Your task to perform on an android device: Search for "corsair k70" on amazon.com, select the first entry, add it to the cart, then select checkout. Image 0: 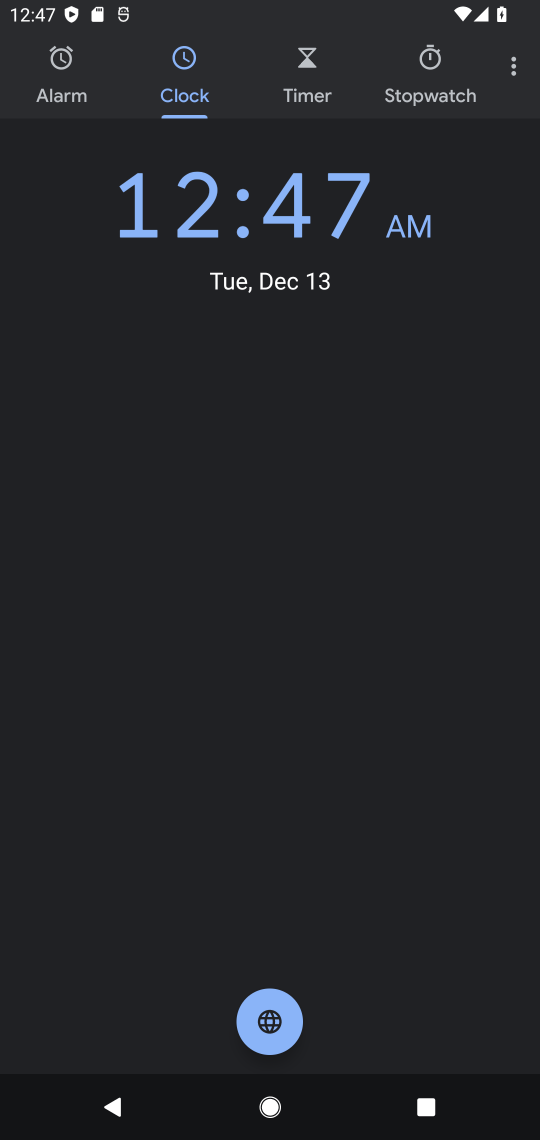
Step 0: press home button
Your task to perform on an android device: Search for "corsair k70" on amazon.com, select the first entry, add it to the cart, then select checkout. Image 1: 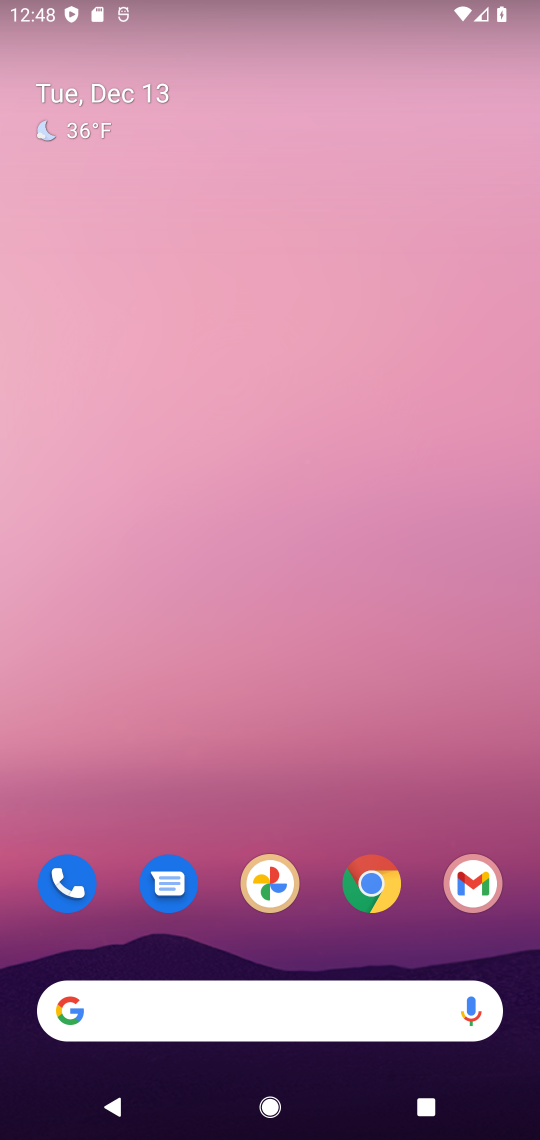
Step 1: click (266, 1021)
Your task to perform on an android device: Search for "corsair k70" on amazon.com, select the first entry, add it to the cart, then select checkout. Image 2: 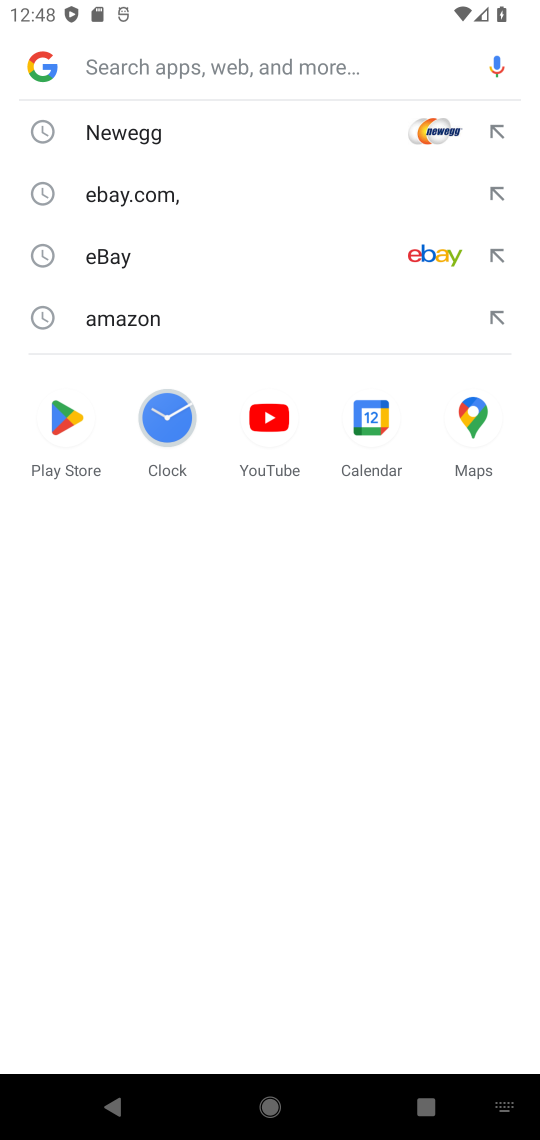
Step 2: click (106, 314)
Your task to perform on an android device: Search for "corsair k70" on amazon.com, select the first entry, add it to the cart, then select checkout. Image 3: 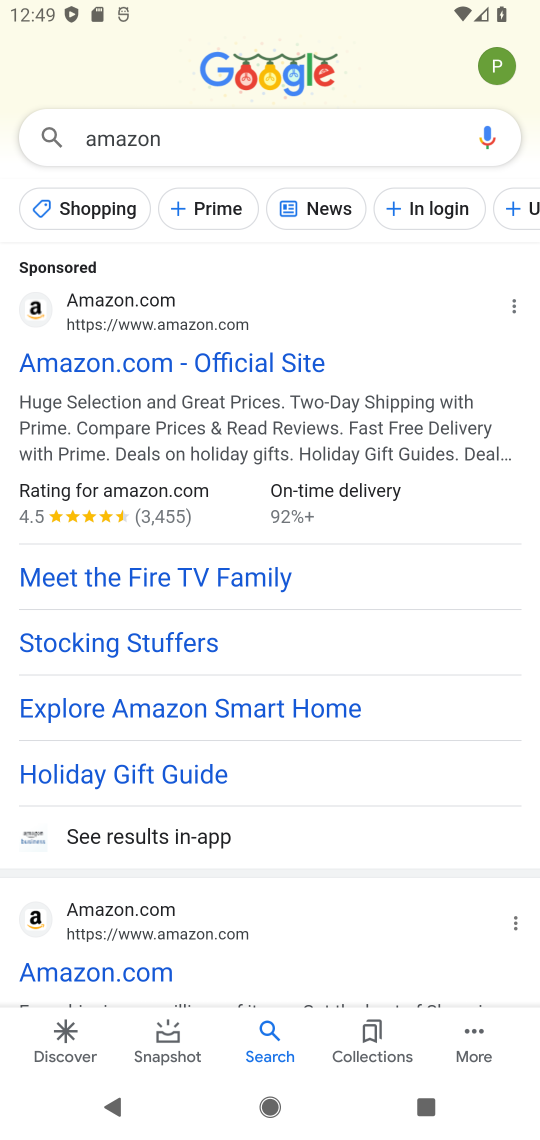
Step 3: click (140, 366)
Your task to perform on an android device: Search for "corsair k70" on amazon.com, select the first entry, add it to the cart, then select checkout. Image 4: 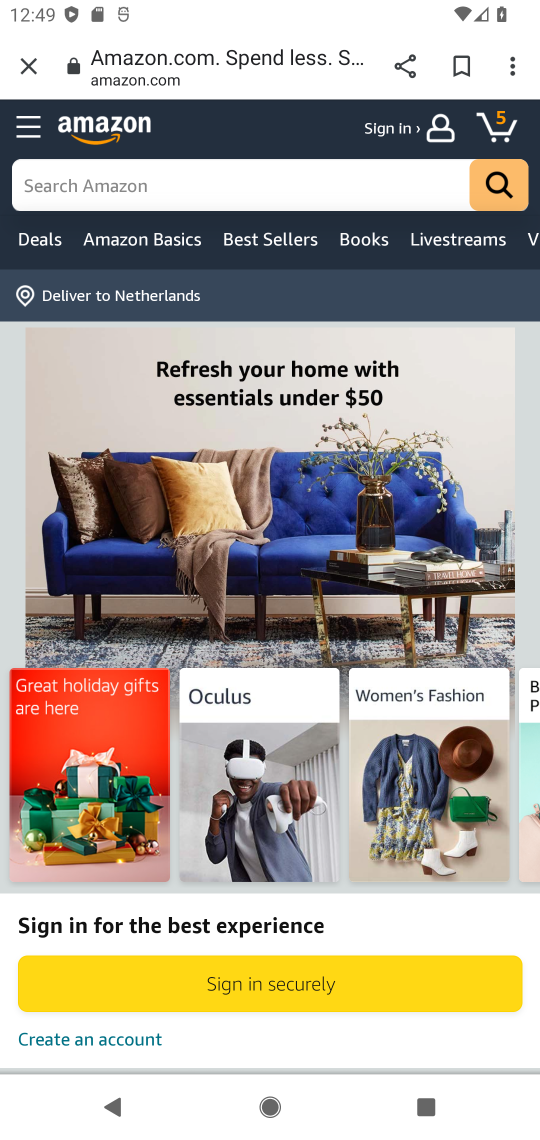
Step 4: click (363, 178)
Your task to perform on an android device: Search for "corsair k70" on amazon.com, select the first entry, add it to the cart, then select checkout. Image 5: 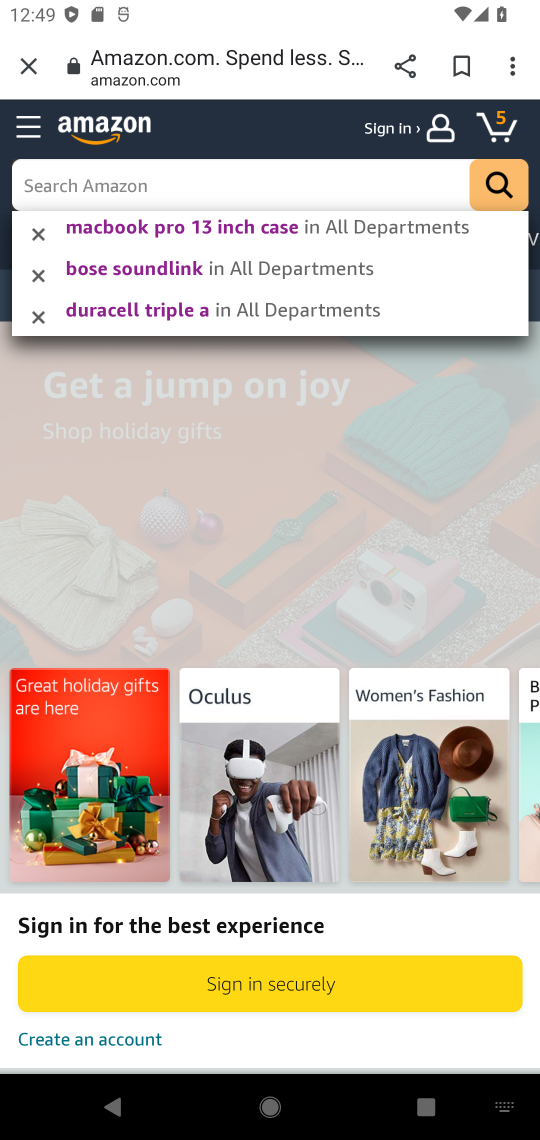
Step 5: click (259, 177)
Your task to perform on an android device: Search for "corsair k70" on amazon.com, select the first entry, add it to the cart, then select checkout. Image 6: 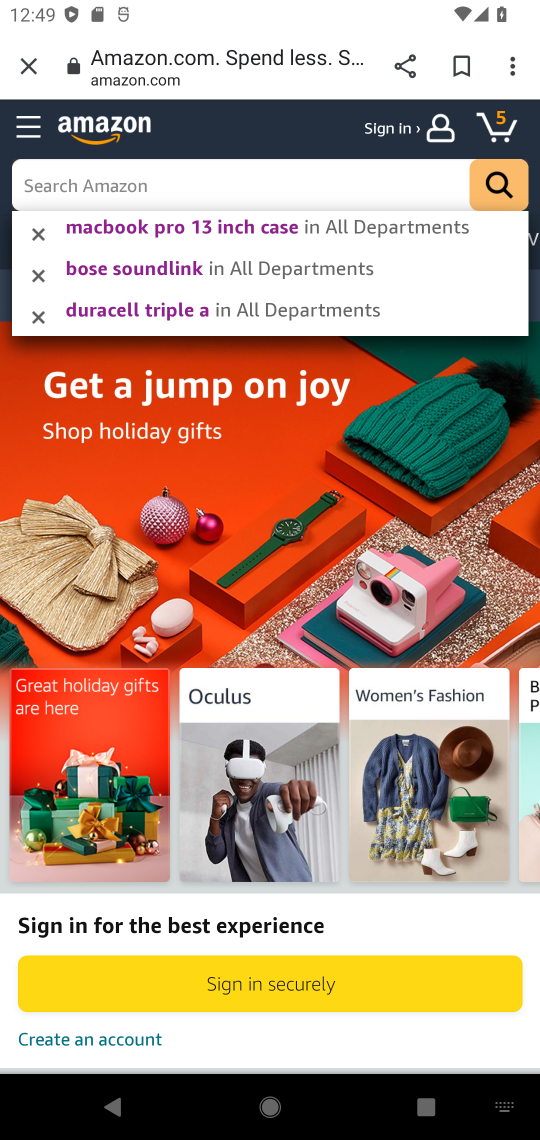
Step 6: type "corsair k70""
Your task to perform on an android device: Search for "corsair k70" on amazon.com, select the first entry, add it to the cart, then select checkout. Image 7: 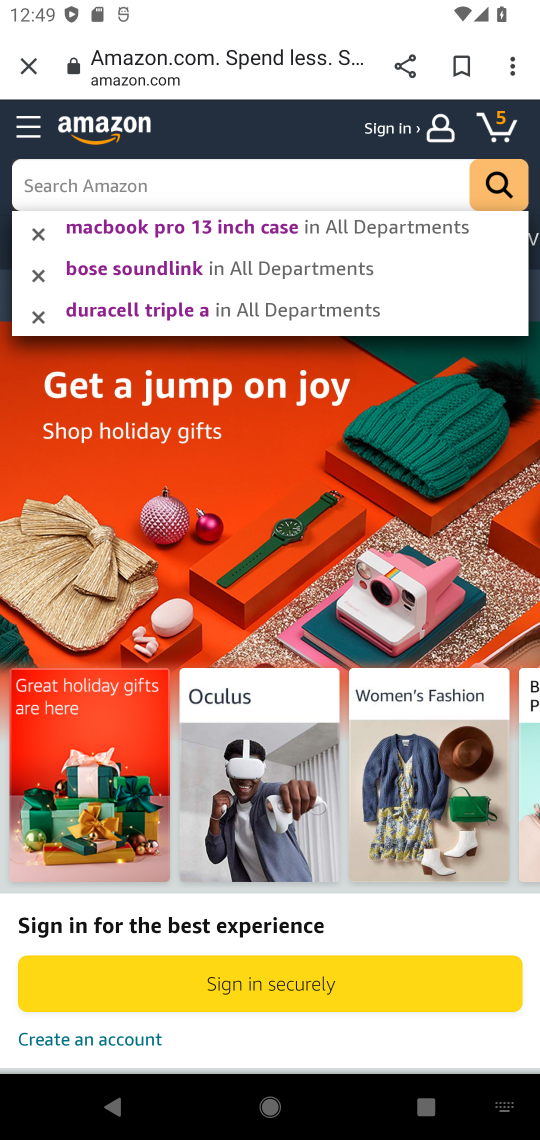
Step 7: type "corsair k70"
Your task to perform on an android device: Search for "corsair k70" on amazon.com, select the first entry, add it to the cart, then select checkout. Image 8: 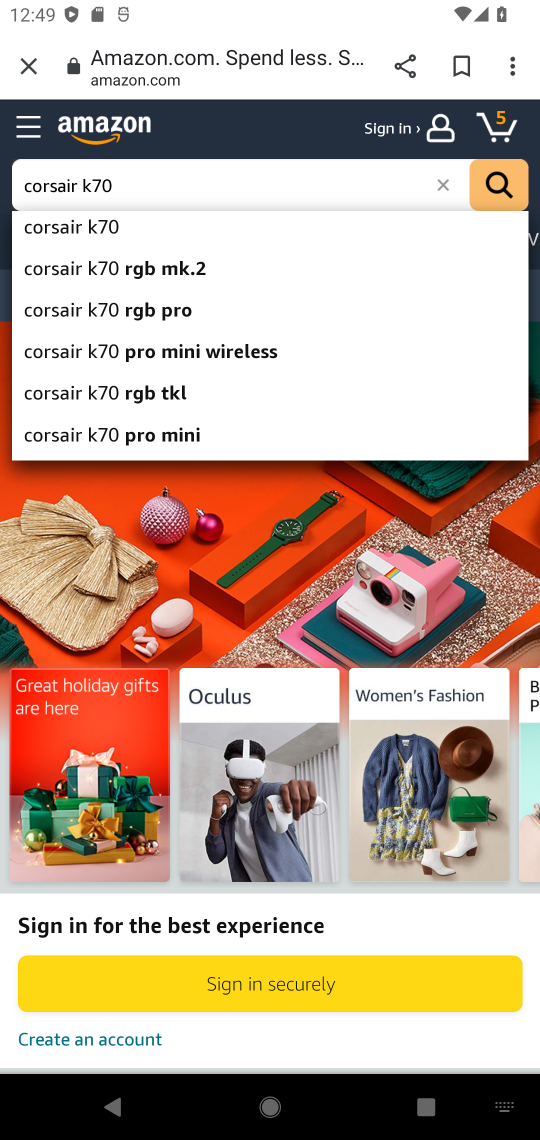
Step 8: click (68, 211)
Your task to perform on an android device: Search for "corsair k70" on amazon.com, select the first entry, add it to the cart, then select checkout. Image 9: 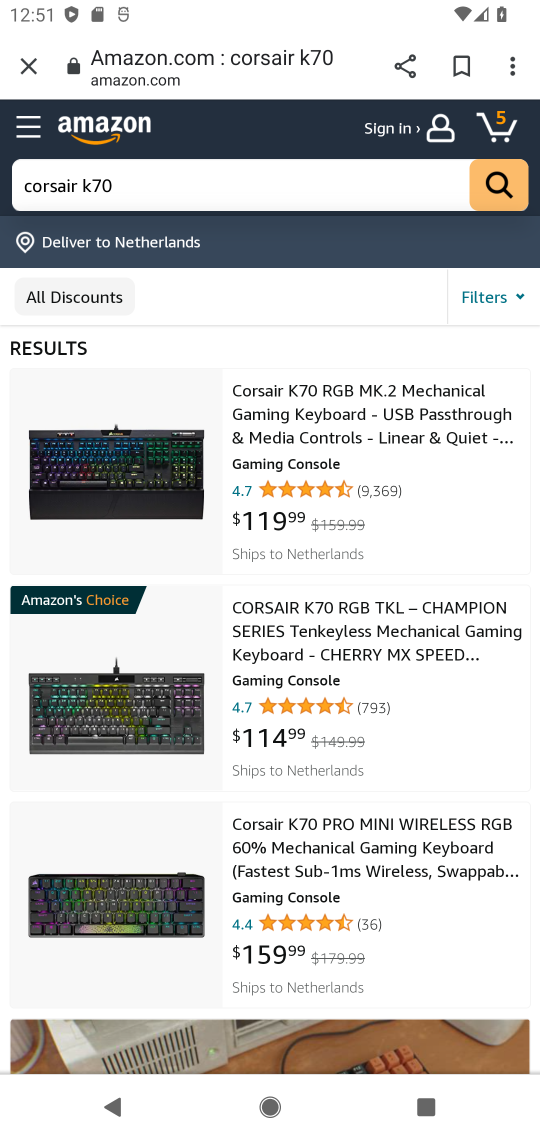
Step 9: click (389, 427)
Your task to perform on an android device: Search for "corsair k70" on amazon.com, select the first entry, add it to the cart, then select checkout. Image 10: 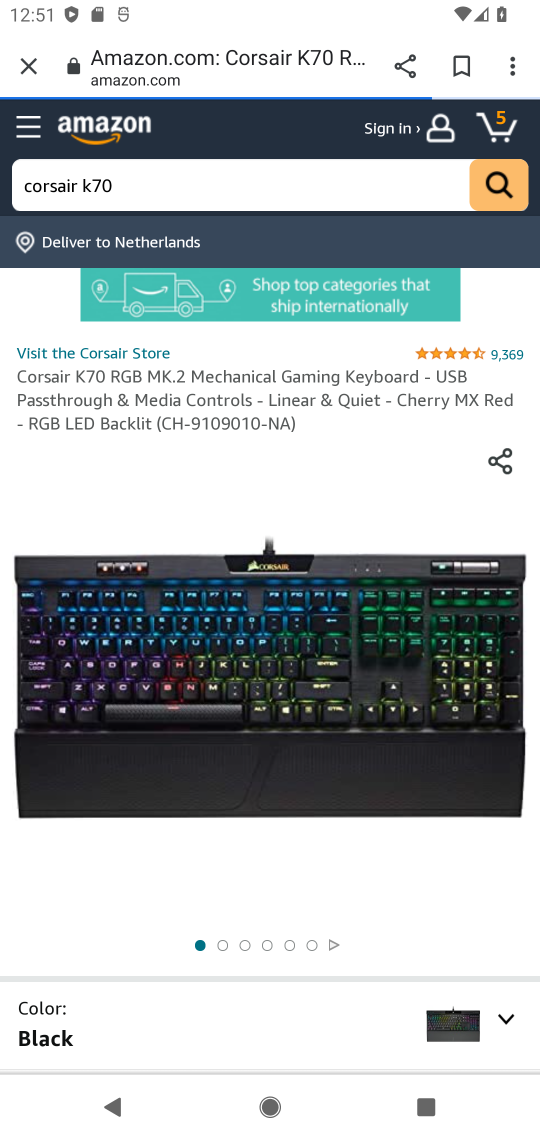
Step 10: drag from (303, 827) to (366, 535)
Your task to perform on an android device: Search for "corsair k70" on amazon.com, select the first entry, add it to the cart, then select checkout. Image 11: 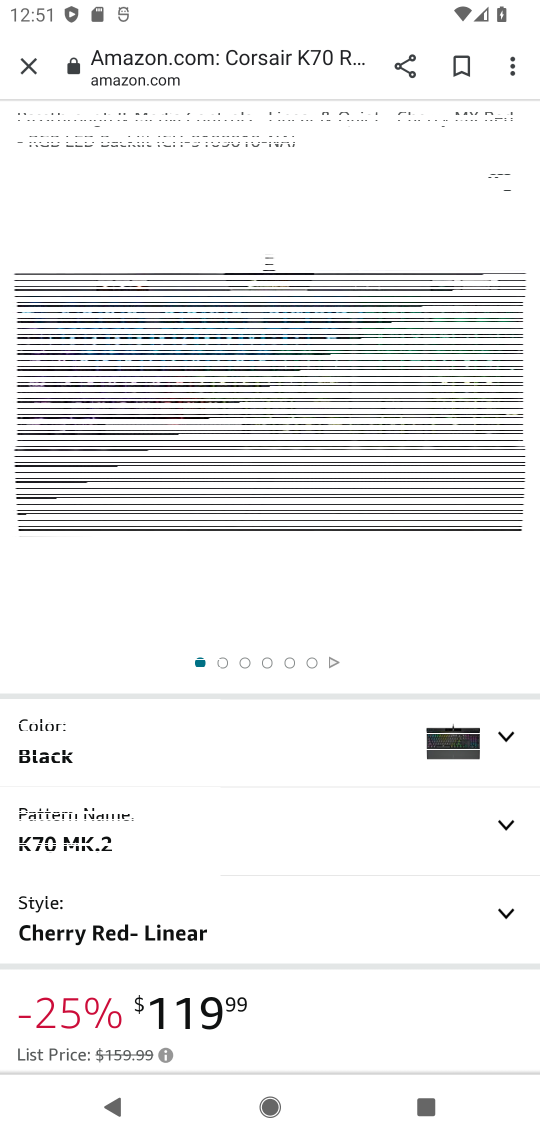
Step 11: drag from (231, 824) to (262, 532)
Your task to perform on an android device: Search for "corsair k70" on amazon.com, select the first entry, add it to the cart, then select checkout. Image 12: 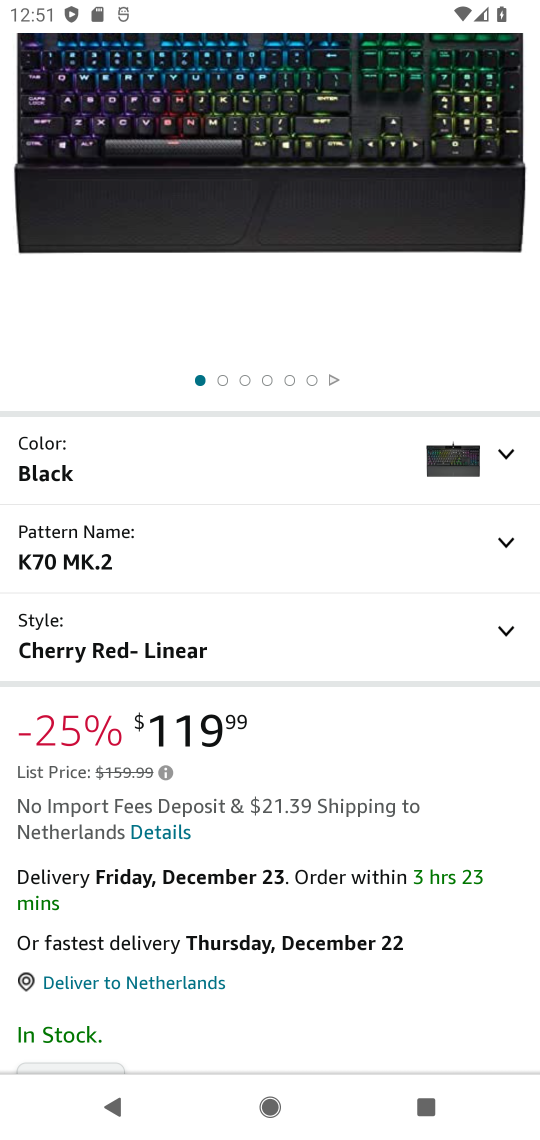
Step 12: drag from (235, 844) to (362, 440)
Your task to perform on an android device: Search for "corsair k70" on amazon.com, select the first entry, add it to the cart, then select checkout. Image 13: 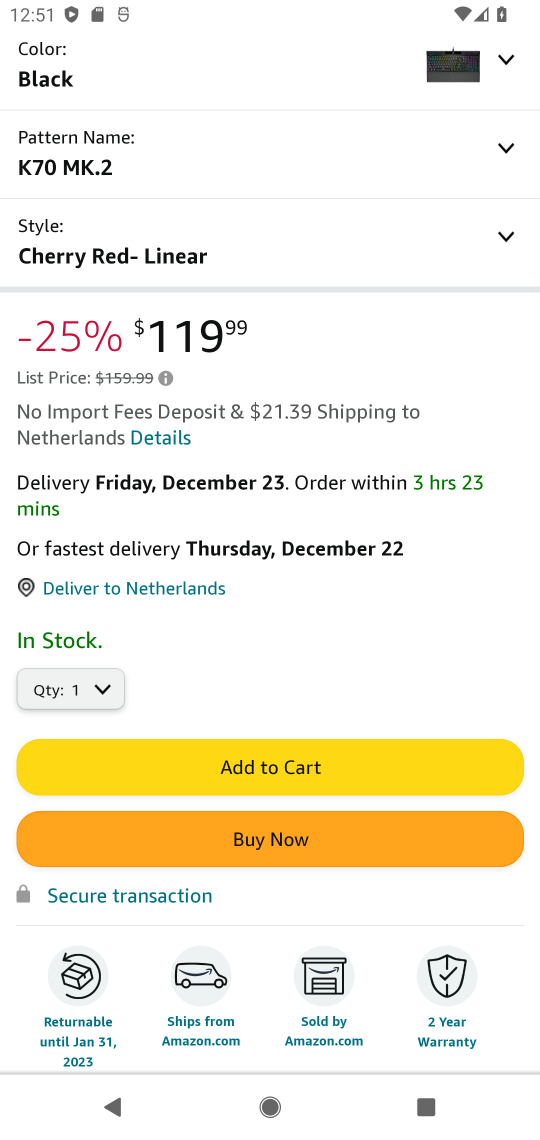
Step 13: click (288, 766)
Your task to perform on an android device: Search for "corsair k70" on amazon.com, select the first entry, add it to the cart, then select checkout. Image 14: 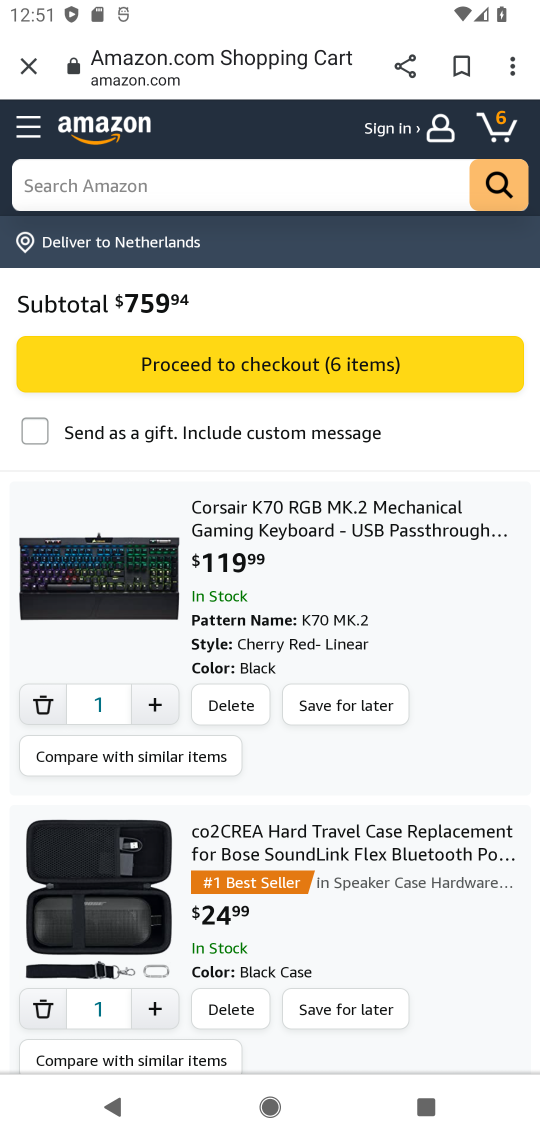
Step 14: click (503, 119)
Your task to perform on an android device: Search for "corsair k70" on amazon.com, select the first entry, add it to the cart, then select checkout. Image 15: 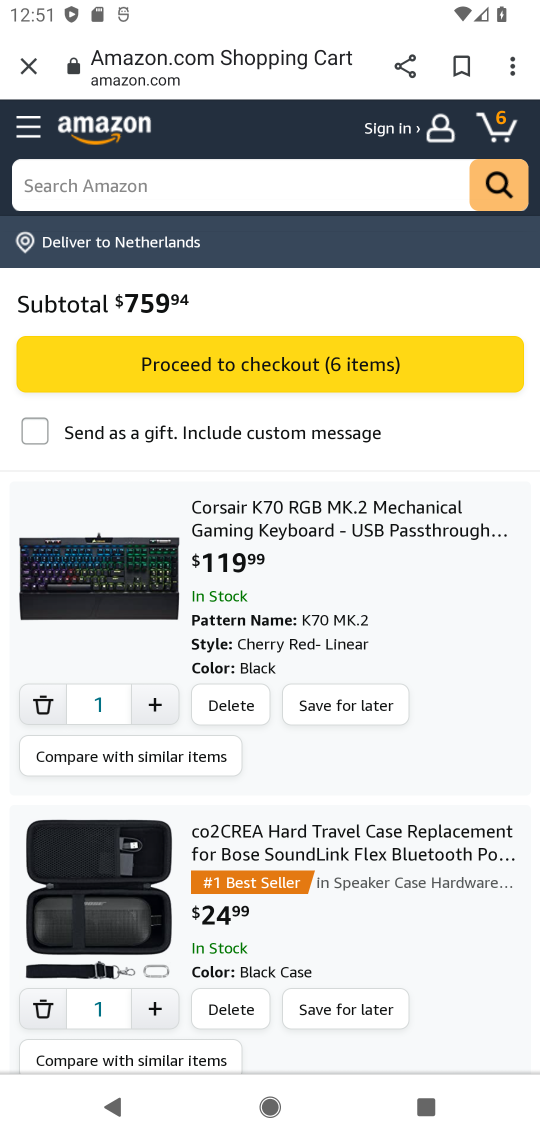
Step 15: click (503, 124)
Your task to perform on an android device: Search for "corsair k70" on amazon.com, select the first entry, add it to the cart, then select checkout. Image 16: 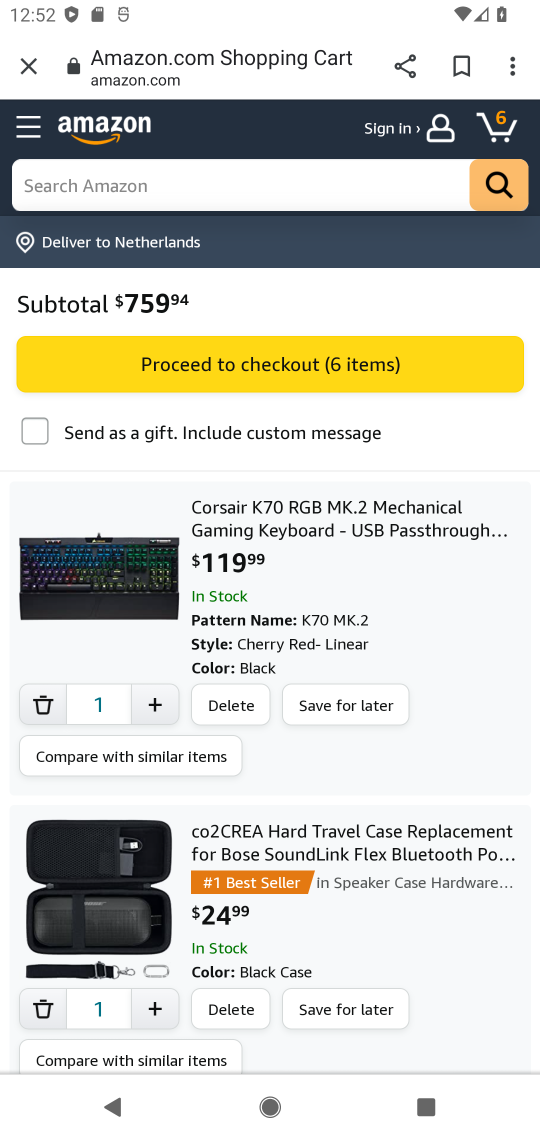
Step 16: click (258, 376)
Your task to perform on an android device: Search for "corsair k70" on amazon.com, select the first entry, add it to the cart, then select checkout. Image 17: 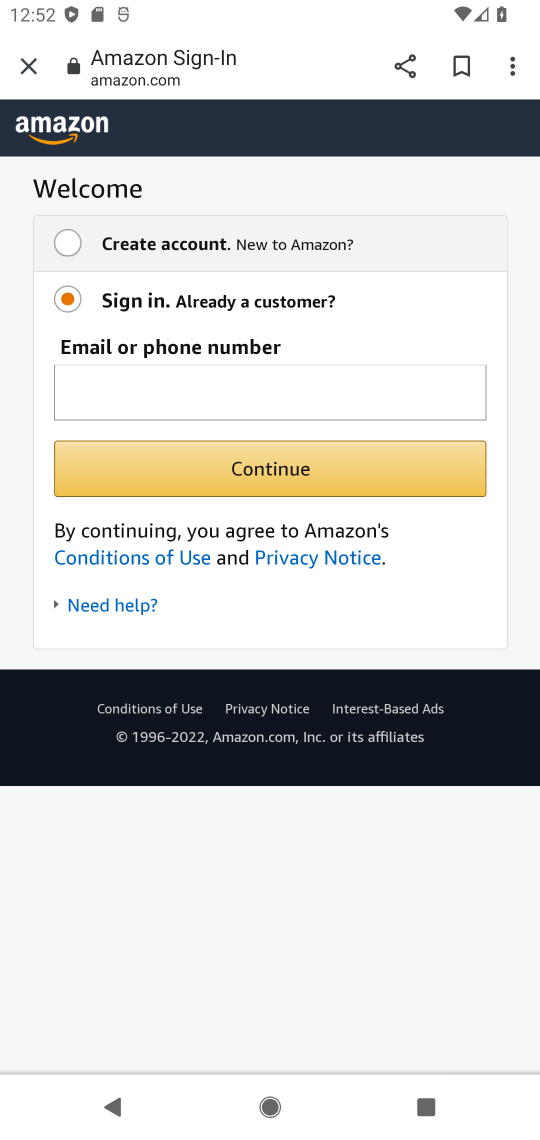
Step 17: task complete